Your task to perform on an android device: turn off location Image 0: 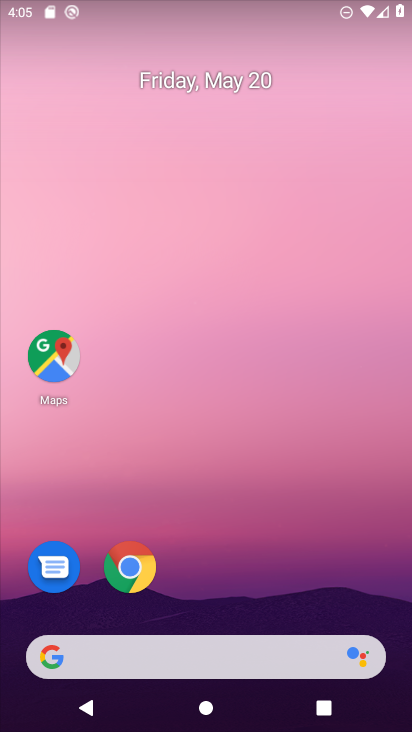
Step 0: drag from (224, 720) to (214, 267)
Your task to perform on an android device: turn off location Image 1: 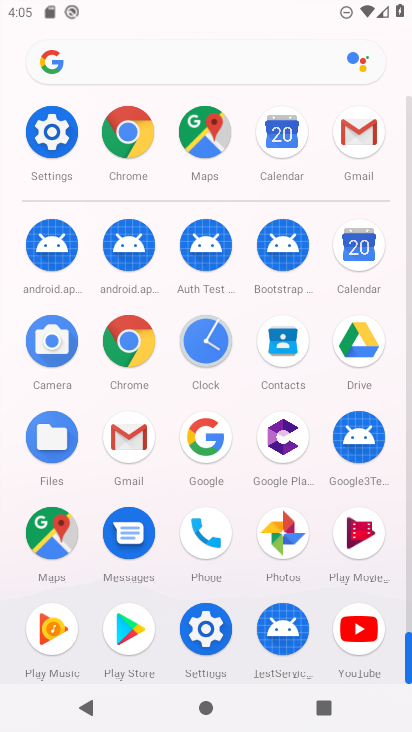
Step 1: click (49, 125)
Your task to perform on an android device: turn off location Image 2: 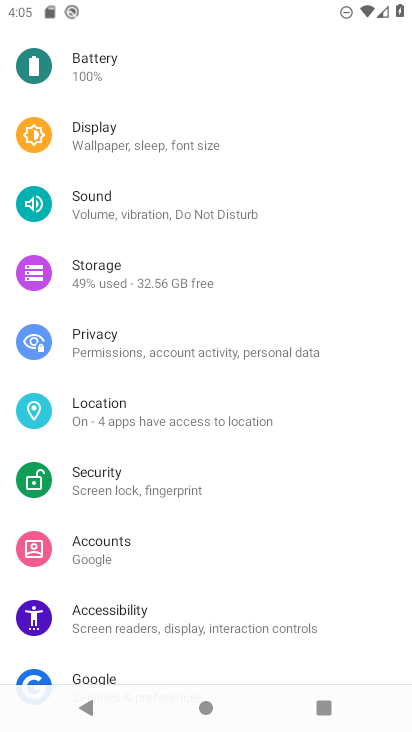
Step 2: click (93, 408)
Your task to perform on an android device: turn off location Image 3: 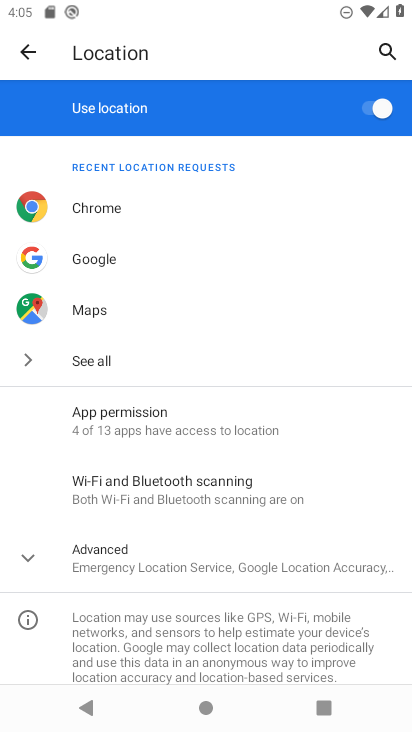
Step 3: click (362, 107)
Your task to perform on an android device: turn off location Image 4: 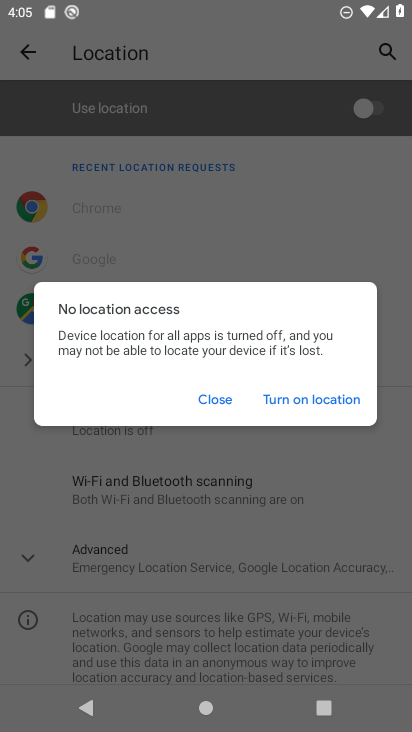
Step 4: click (210, 398)
Your task to perform on an android device: turn off location Image 5: 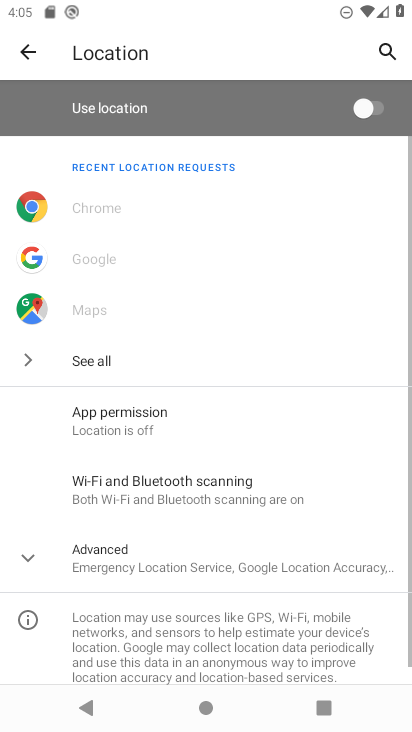
Step 5: task complete